Your task to perform on an android device: turn pop-ups off in chrome Image 0: 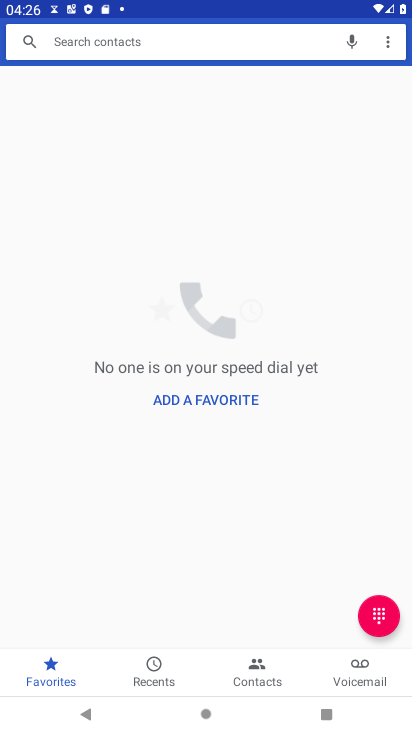
Step 0: press home button
Your task to perform on an android device: turn pop-ups off in chrome Image 1: 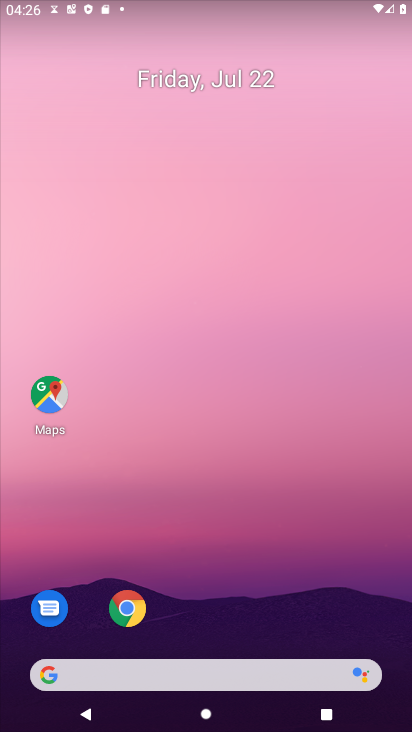
Step 1: drag from (234, 723) to (232, 53)
Your task to perform on an android device: turn pop-ups off in chrome Image 2: 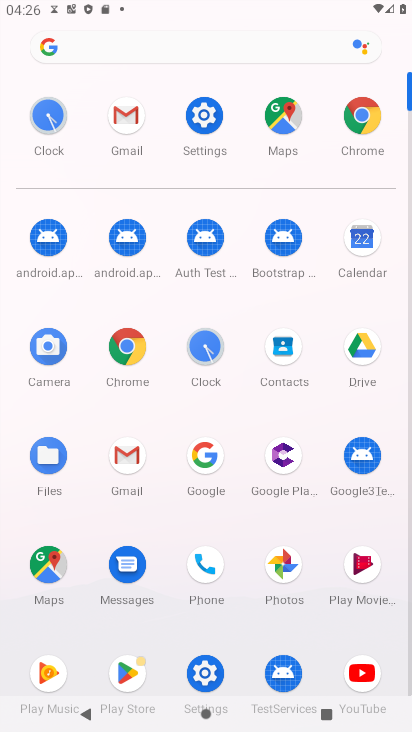
Step 2: click (123, 343)
Your task to perform on an android device: turn pop-ups off in chrome Image 3: 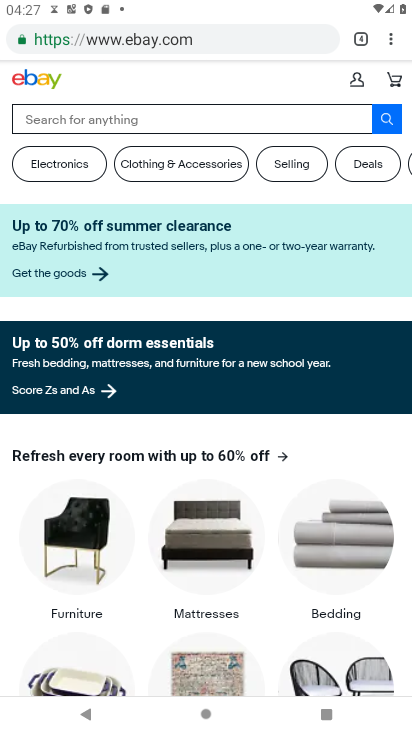
Step 3: click (390, 41)
Your task to perform on an android device: turn pop-ups off in chrome Image 4: 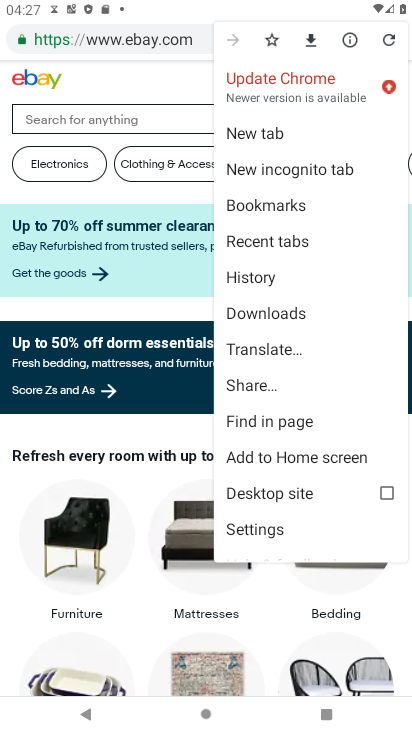
Step 4: click (257, 528)
Your task to perform on an android device: turn pop-ups off in chrome Image 5: 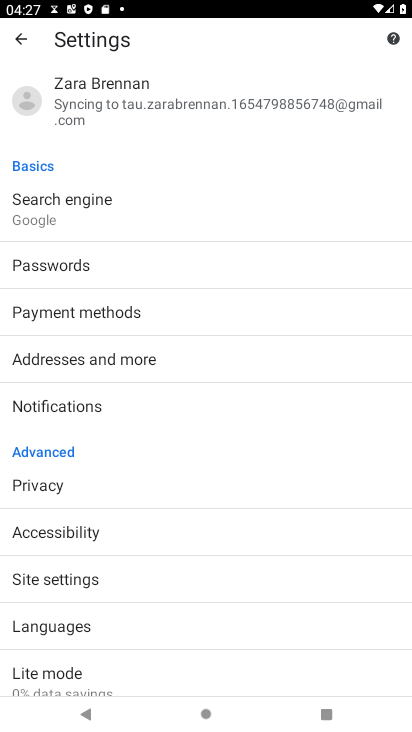
Step 5: click (61, 580)
Your task to perform on an android device: turn pop-ups off in chrome Image 6: 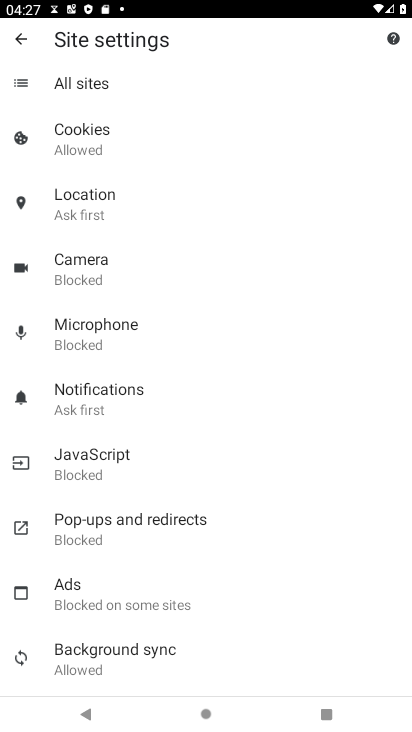
Step 6: click (93, 522)
Your task to perform on an android device: turn pop-ups off in chrome Image 7: 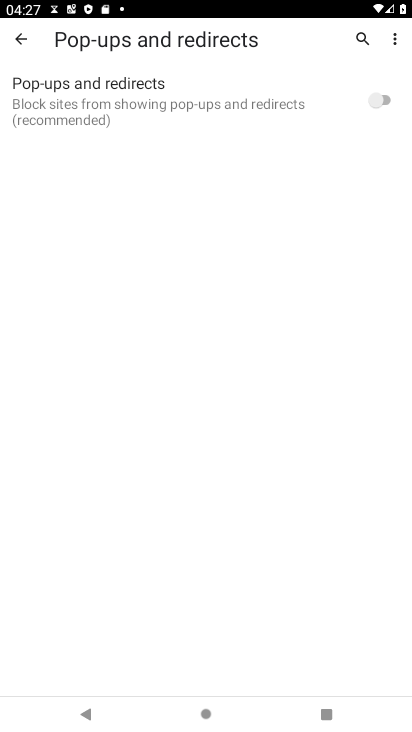
Step 7: task complete